Your task to perform on an android device: Open the calendar and show me this week's events? Image 0: 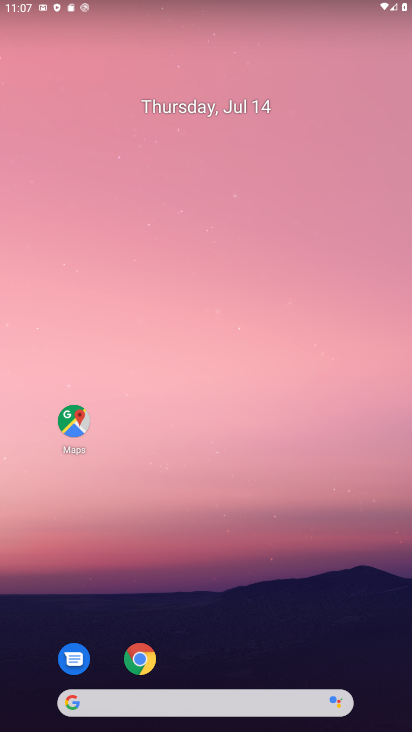
Step 0: drag from (222, 611) to (230, 168)
Your task to perform on an android device: Open the calendar and show me this week's events? Image 1: 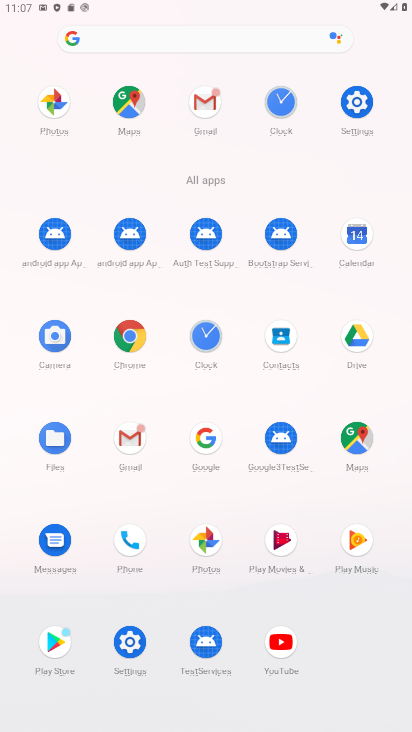
Step 1: click (363, 236)
Your task to perform on an android device: Open the calendar and show me this week's events? Image 2: 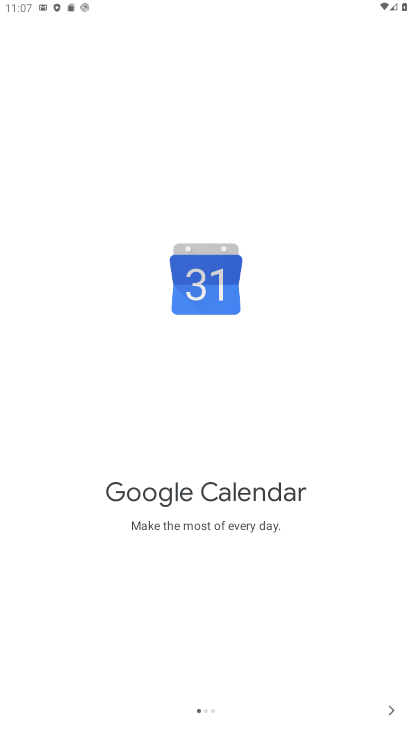
Step 2: click (370, 706)
Your task to perform on an android device: Open the calendar and show me this week's events? Image 3: 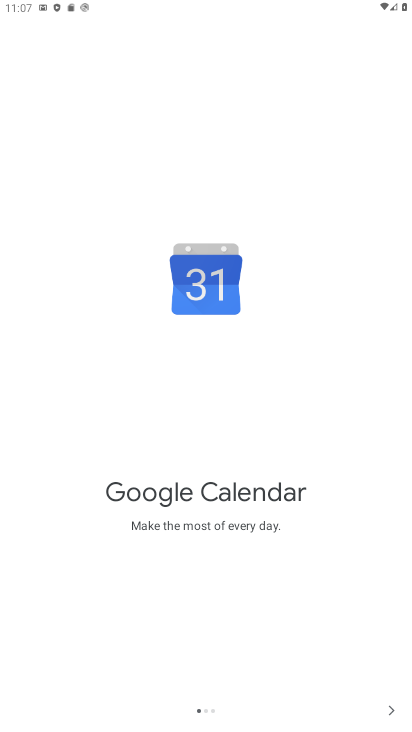
Step 3: click (370, 706)
Your task to perform on an android device: Open the calendar and show me this week's events? Image 4: 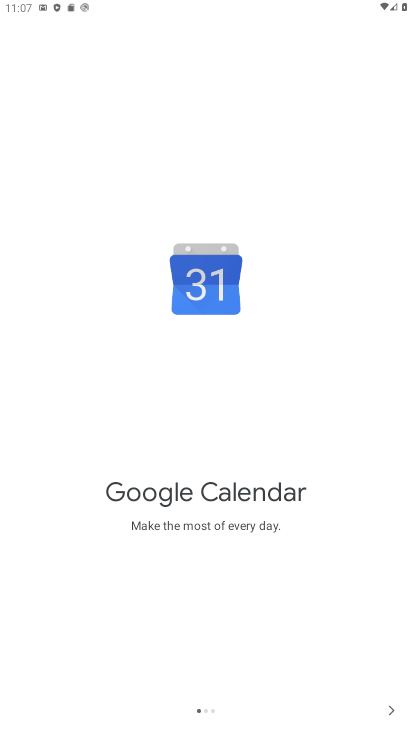
Step 4: click (378, 706)
Your task to perform on an android device: Open the calendar and show me this week's events? Image 5: 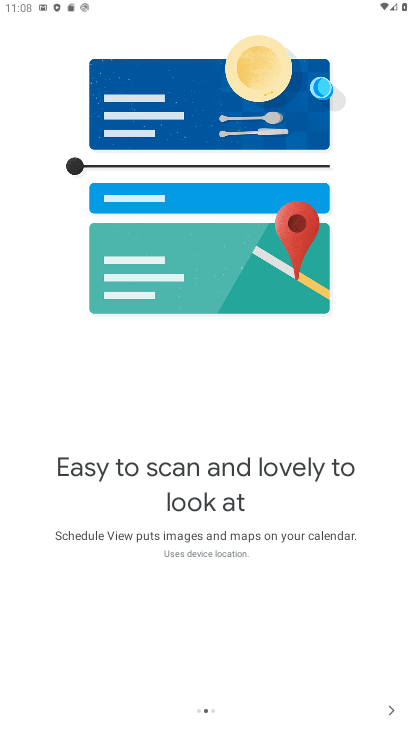
Step 5: click (378, 706)
Your task to perform on an android device: Open the calendar and show me this week's events? Image 6: 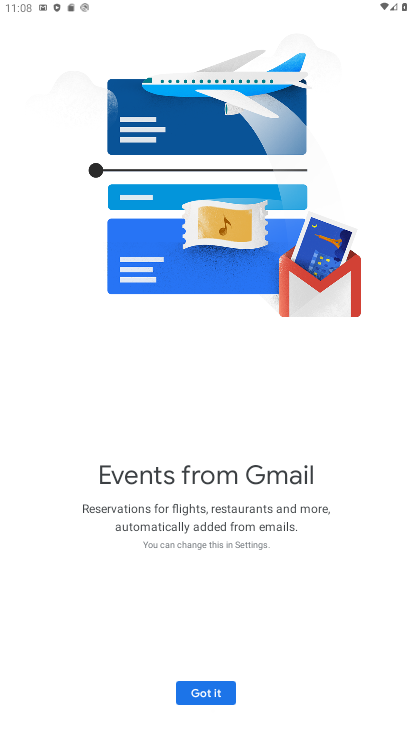
Step 6: click (378, 706)
Your task to perform on an android device: Open the calendar and show me this week's events? Image 7: 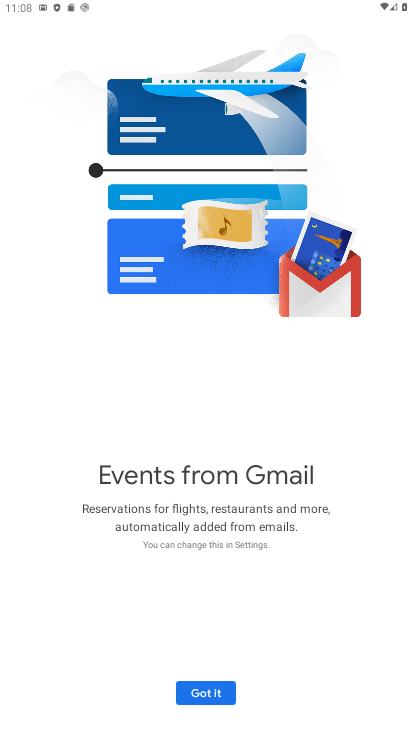
Step 7: click (202, 694)
Your task to perform on an android device: Open the calendar and show me this week's events? Image 8: 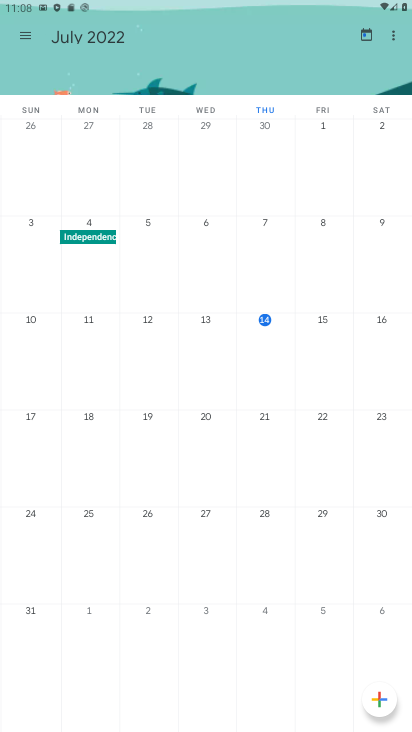
Step 8: click (17, 36)
Your task to perform on an android device: Open the calendar and show me this week's events? Image 9: 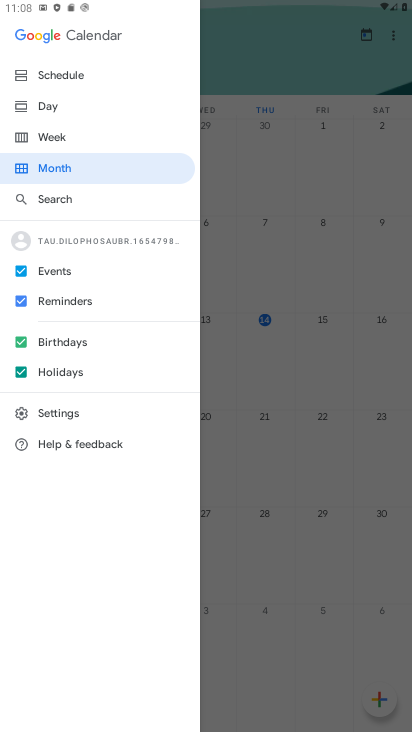
Step 9: click (70, 127)
Your task to perform on an android device: Open the calendar and show me this week's events? Image 10: 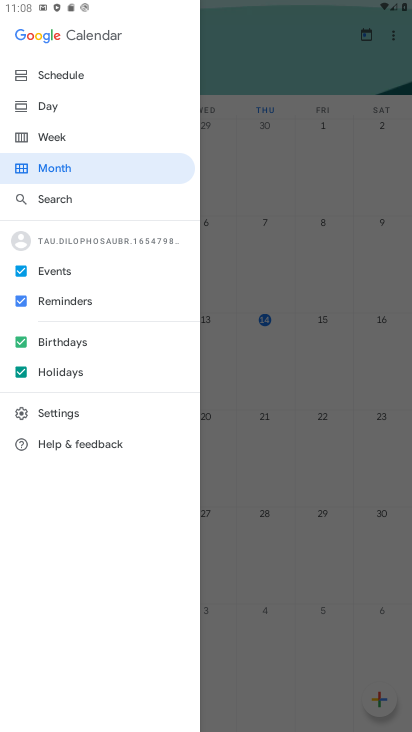
Step 10: click (70, 127)
Your task to perform on an android device: Open the calendar and show me this week's events? Image 11: 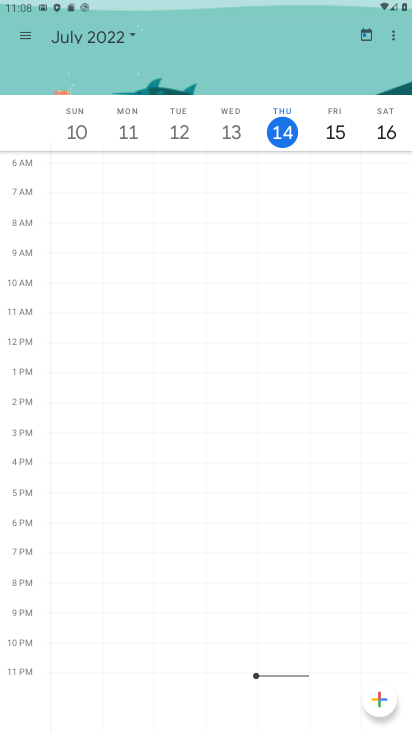
Step 11: task complete